Your task to perform on an android device: Go to eBay Image 0: 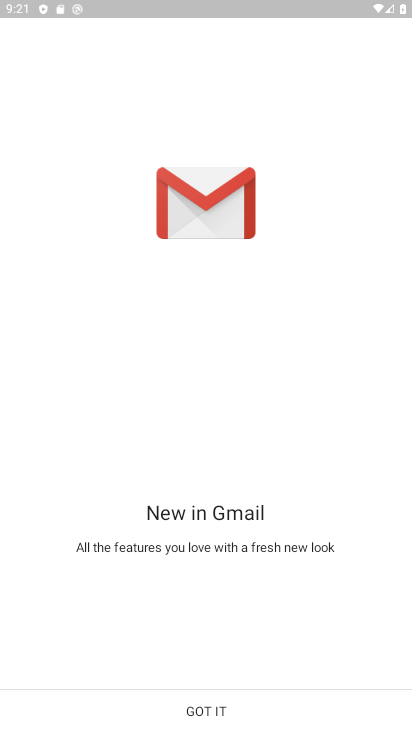
Step 0: press back button
Your task to perform on an android device: Go to eBay Image 1: 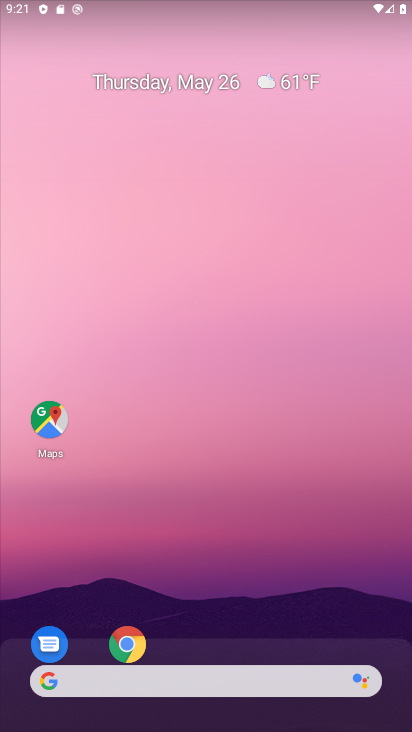
Step 1: drag from (277, 690) to (162, 36)
Your task to perform on an android device: Go to eBay Image 2: 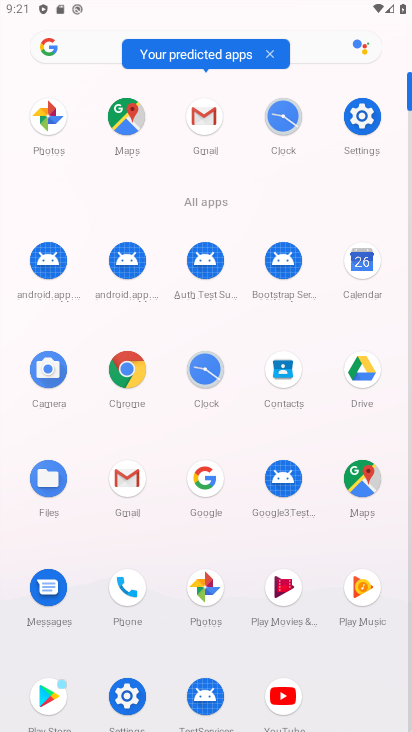
Step 2: click (130, 375)
Your task to perform on an android device: Go to eBay Image 3: 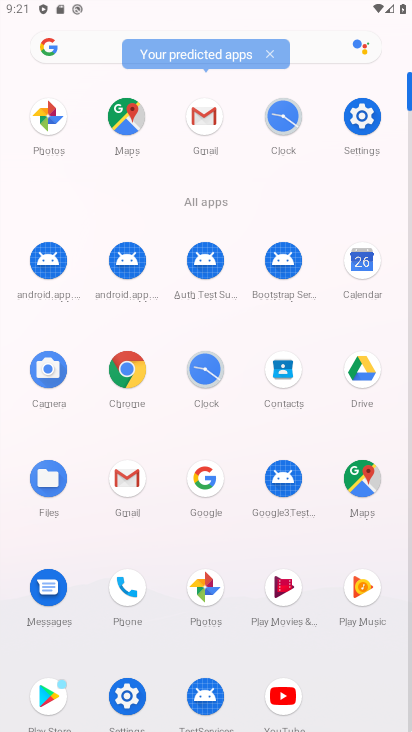
Step 3: click (130, 375)
Your task to perform on an android device: Go to eBay Image 4: 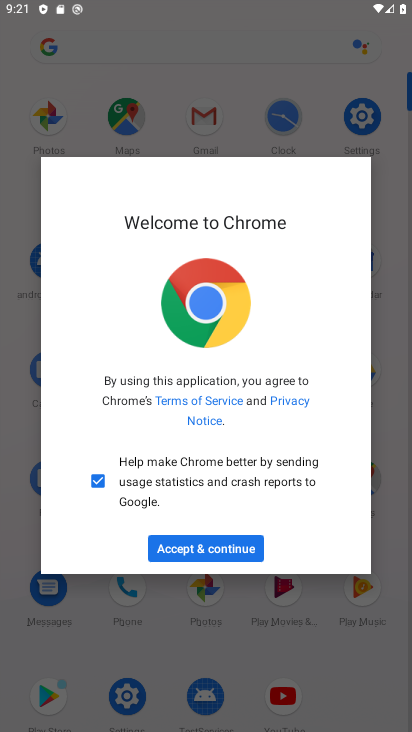
Step 4: click (189, 534)
Your task to perform on an android device: Go to eBay Image 5: 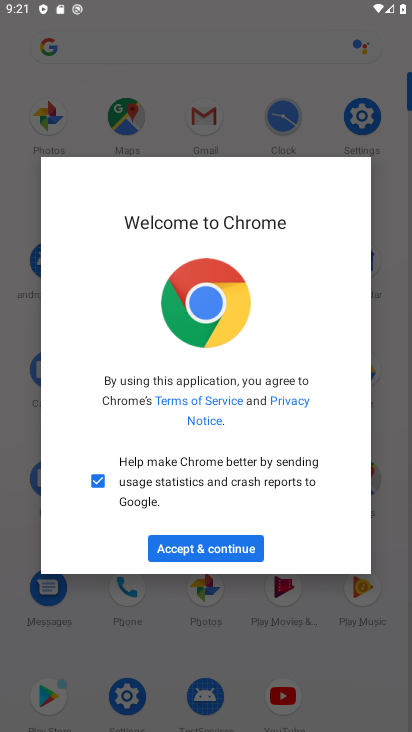
Step 5: click (222, 545)
Your task to perform on an android device: Go to eBay Image 6: 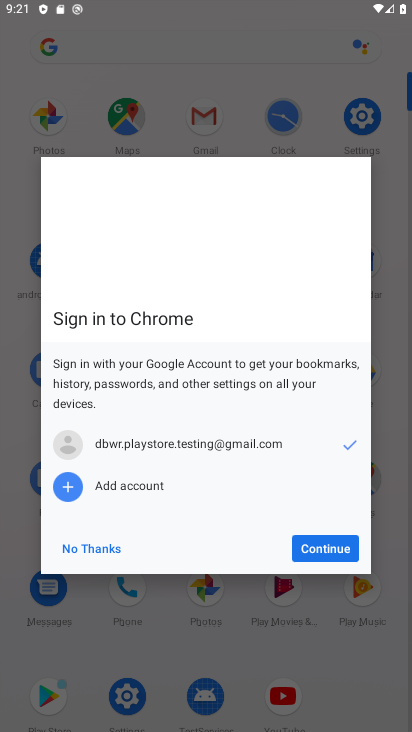
Step 6: click (224, 544)
Your task to perform on an android device: Go to eBay Image 7: 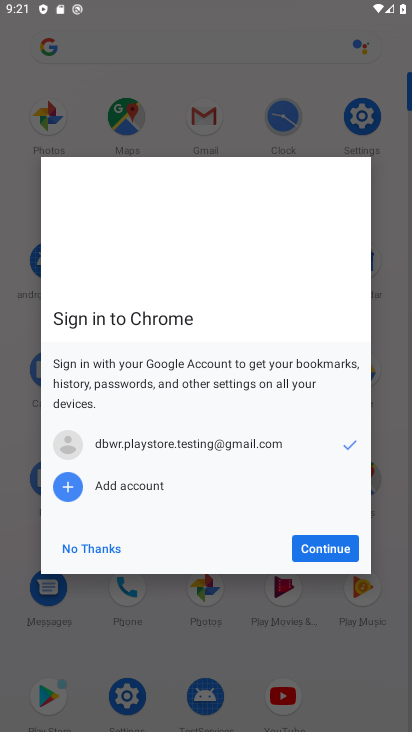
Step 7: click (333, 537)
Your task to perform on an android device: Go to eBay Image 8: 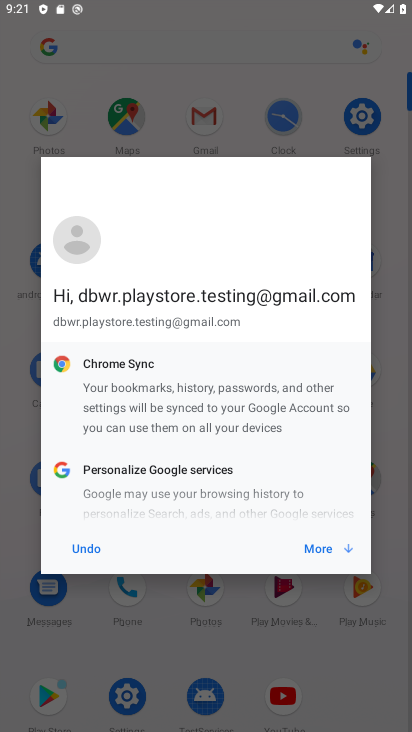
Step 8: click (331, 538)
Your task to perform on an android device: Go to eBay Image 9: 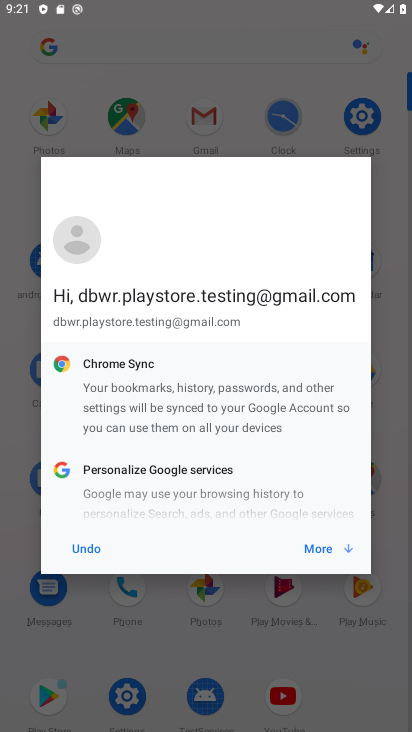
Step 9: click (331, 538)
Your task to perform on an android device: Go to eBay Image 10: 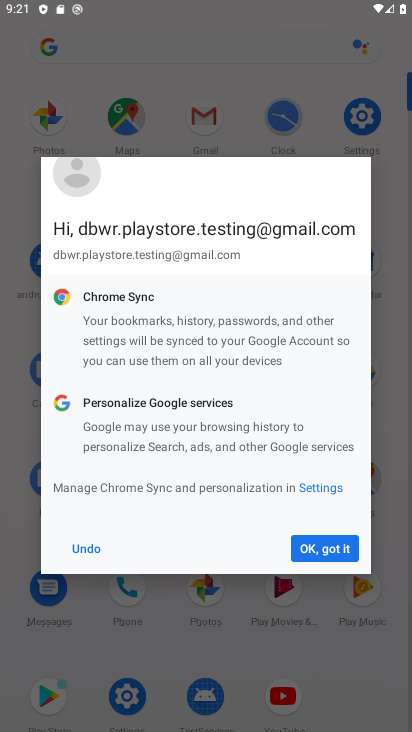
Step 10: click (331, 538)
Your task to perform on an android device: Go to eBay Image 11: 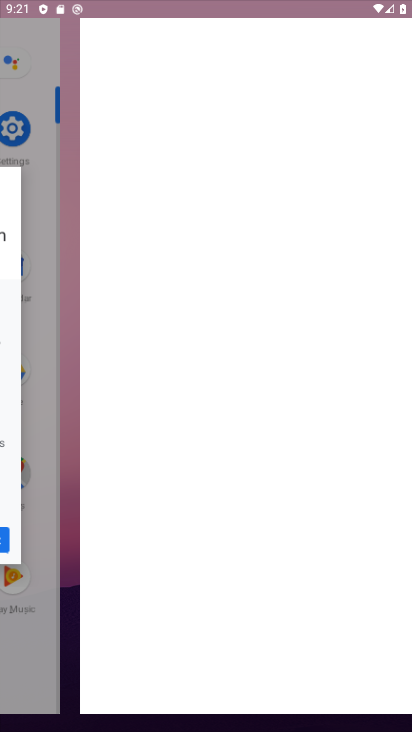
Step 11: click (332, 539)
Your task to perform on an android device: Go to eBay Image 12: 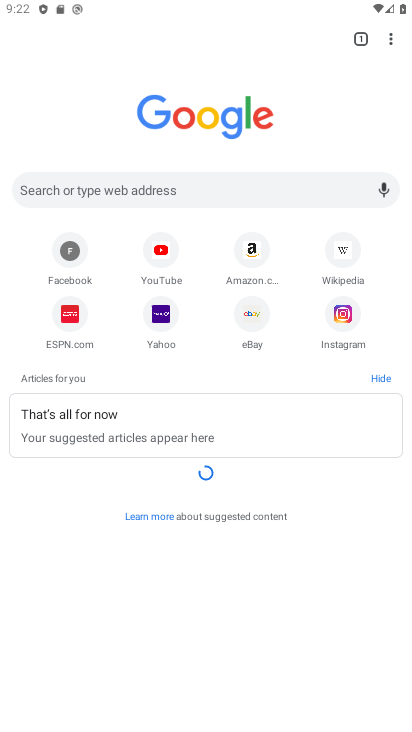
Step 12: click (257, 328)
Your task to perform on an android device: Go to eBay Image 13: 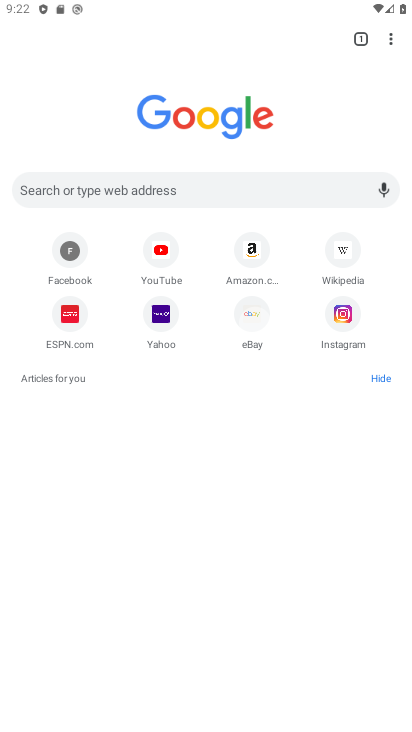
Step 13: click (259, 323)
Your task to perform on an android device: Go to eBay Image 14: 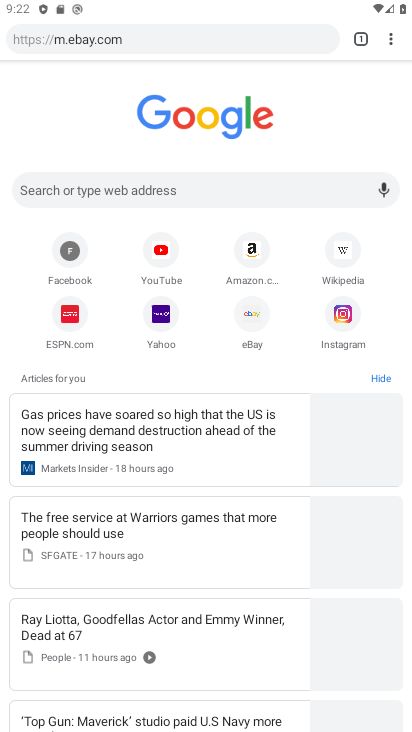
Step 14: click (259, 323)
Your task to perform on an android device: Go to eBay Image 15: 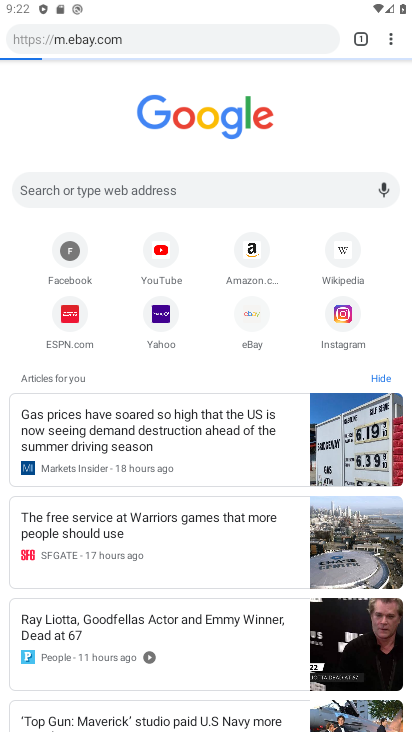
Step 15: click (252, 317)
Your task to perform on an android device: Go to eBay Image 16: 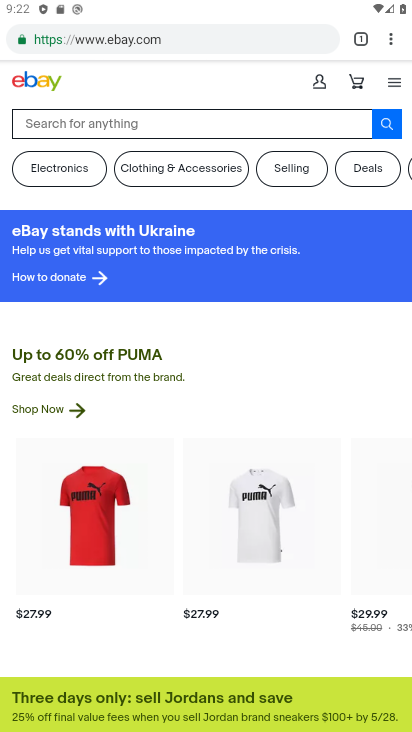
Step 16: task complete